Your task to perform on an android device: Open location settings Image 0: 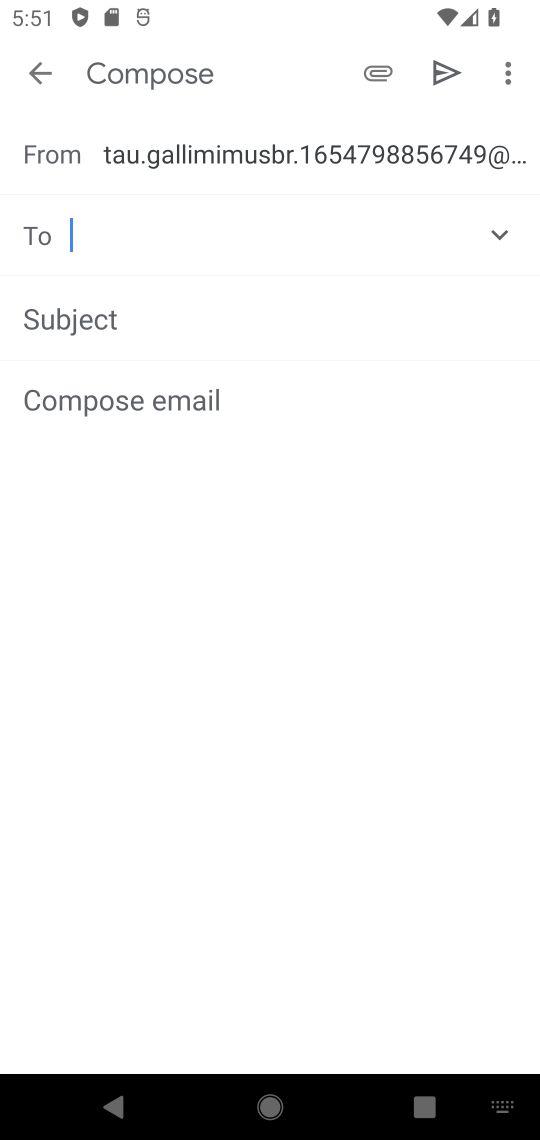
Step 0: press home button
Your task to perform on an android device: Open location settings Image 1: 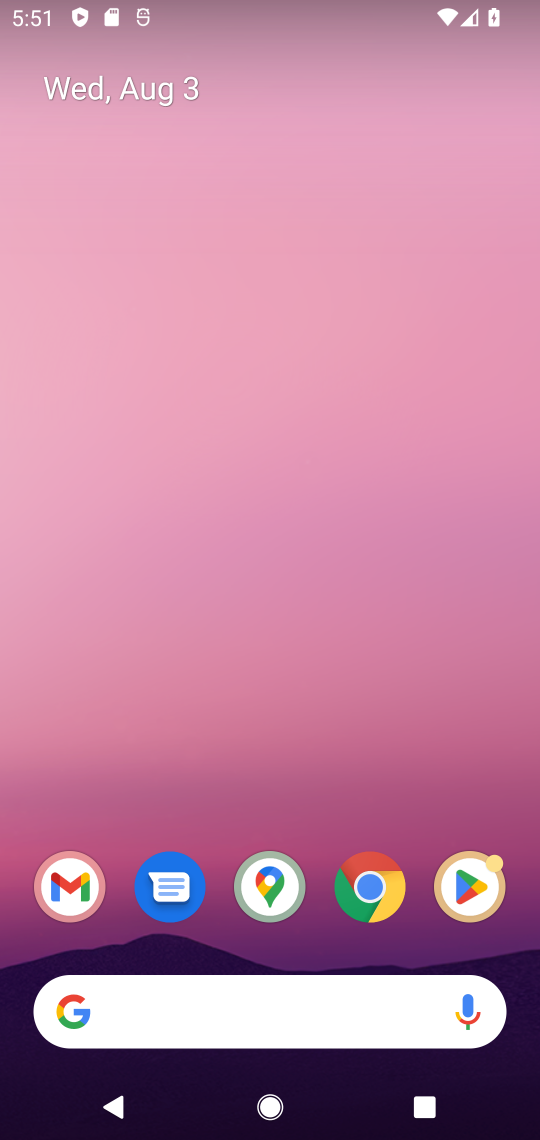
Step 1: drag from (266, 975) to (242, 29)
Your task to perform on an android device: Open location settings Image 2: 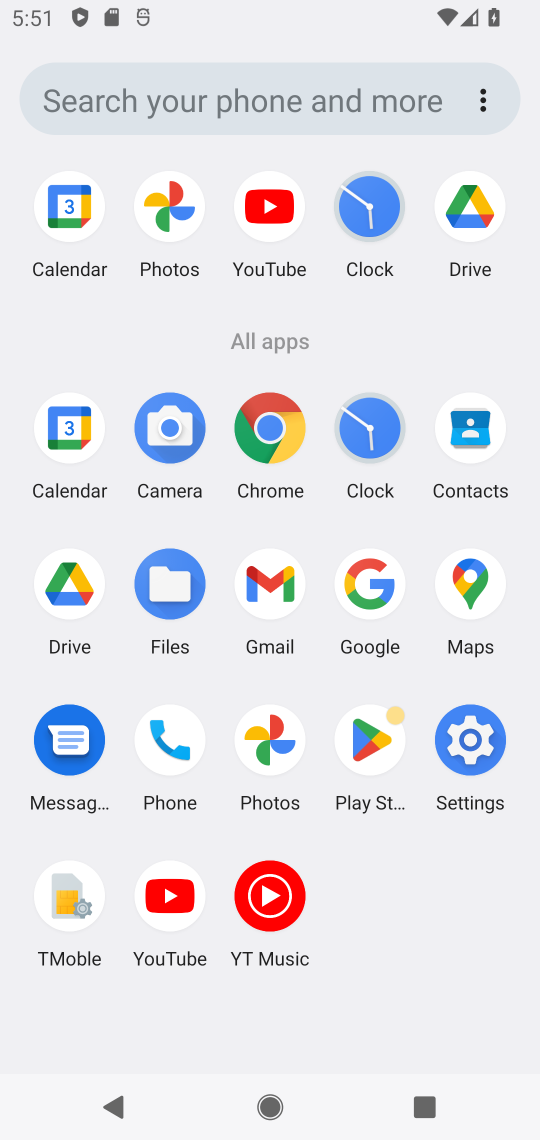
Step 2: click (486, 743)
Your task to perform on an android device: Open location settings Image 3: 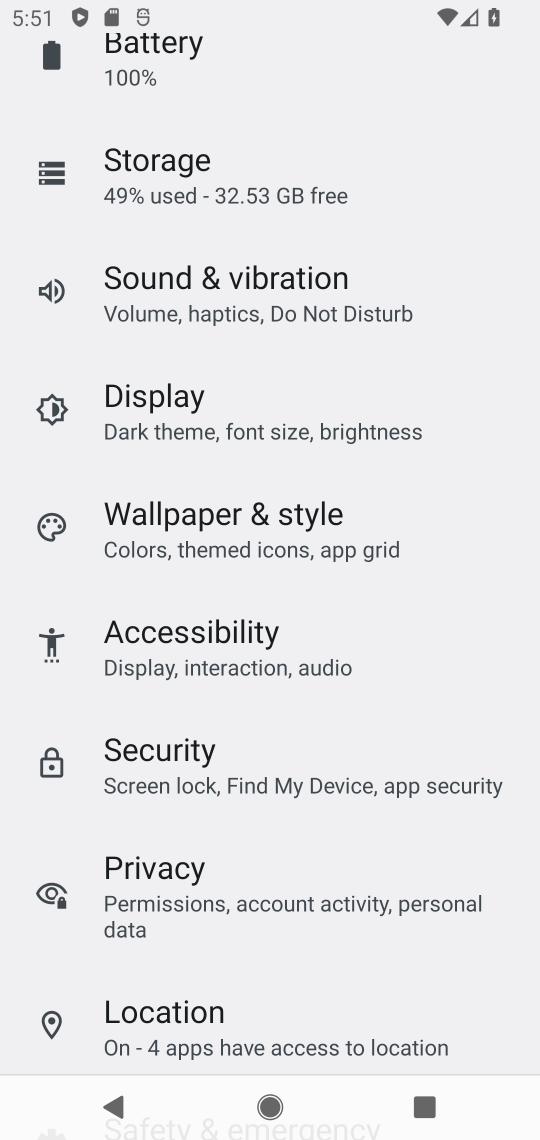
Step 3: click (175, 1023)
Your task to perform on an android device: Open location settings Image 4: 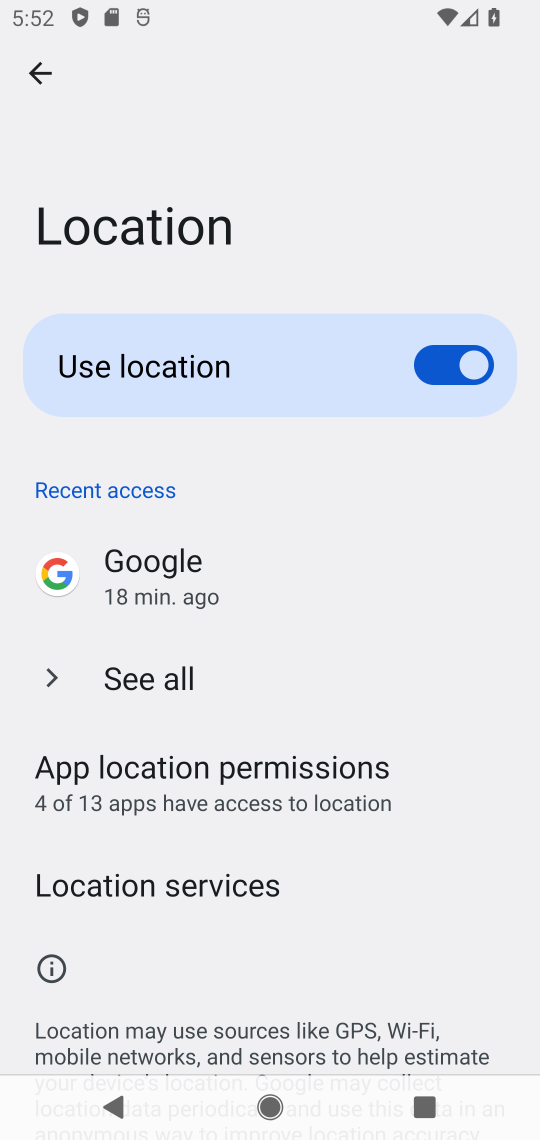
Step 4: task complete